Your task to perform on an android device: toggle sleep mode Image 0: 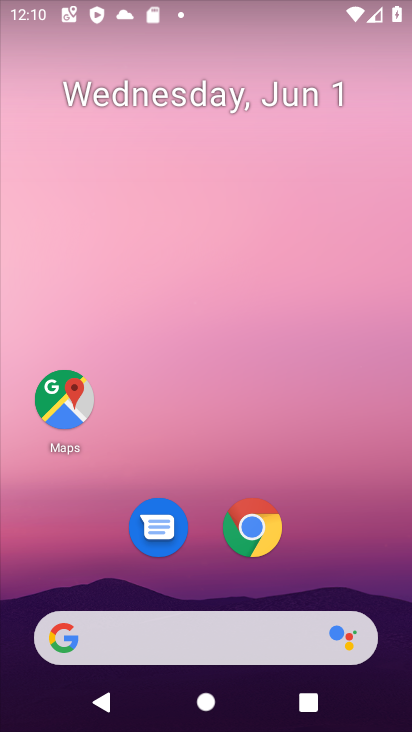
Step 0: drag from (233, 646) to (286, 19)
Your task to perform on an android device: toggle sleep mode Image 1: 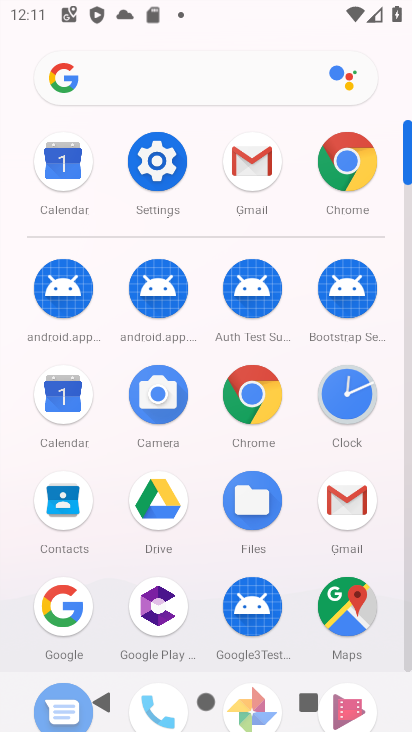
Step 1: click (256, 399)
Your task to perform on an android device: toggle sleep mode Image 2: 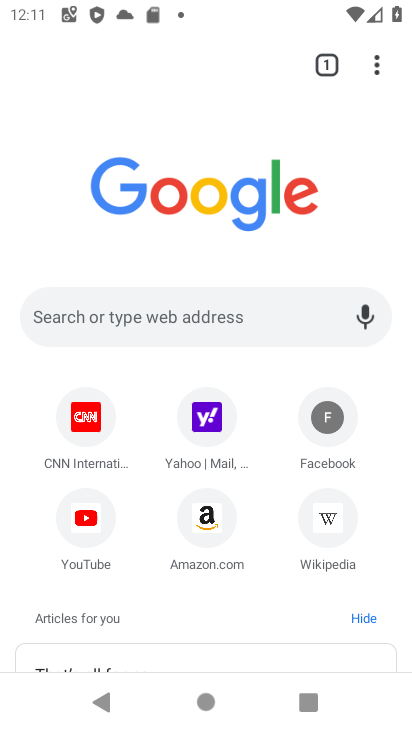
Step 2: click (374, 60)
Your task to perform on an android device: toggle sleep mode Image 3: 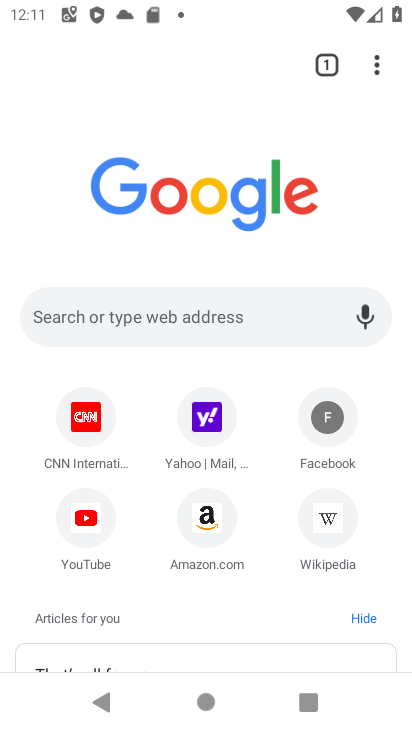
Step 3: press home button
Your task to perform on an android device: toggle sleep mode Image 4: 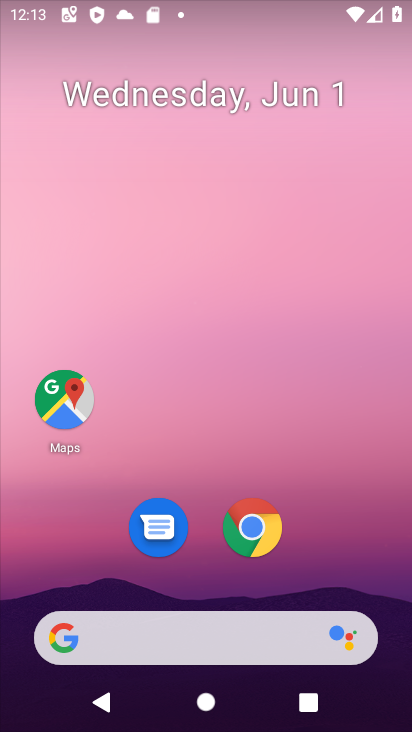
Step 4: drag from (212, 286) to (173, 41)
Your task to perform on an android device: toggle sleep mode Image 5: 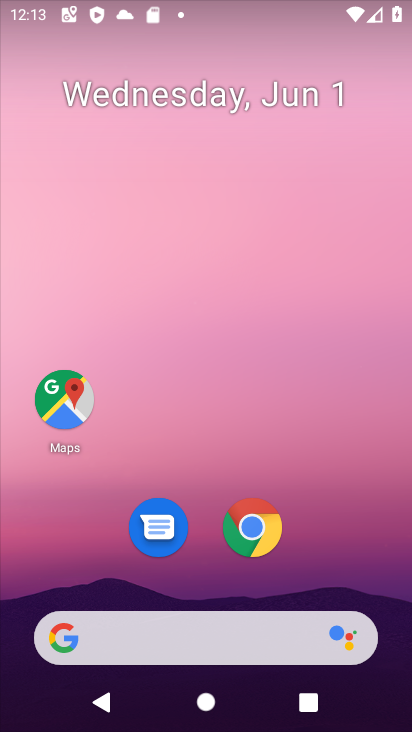
Step 5: drag from (268, 688) to (333, 15)
Your task to perform on an android device: toggle sleep mode Image 6: 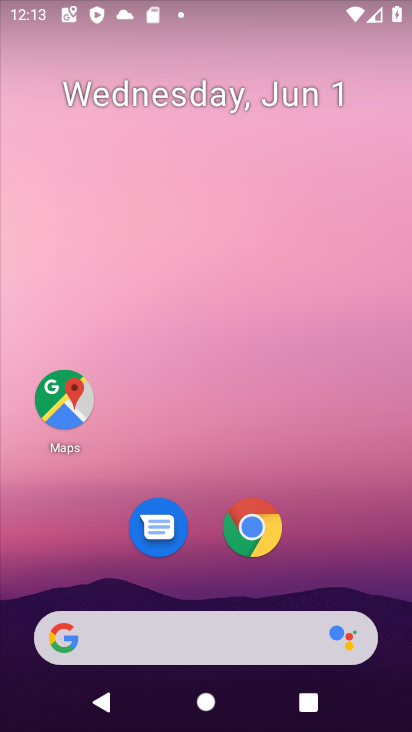
Step 6: drag from (258, 698) to (297, 2)
Your task to perform on an android device: toggle sleep mode Image 7: 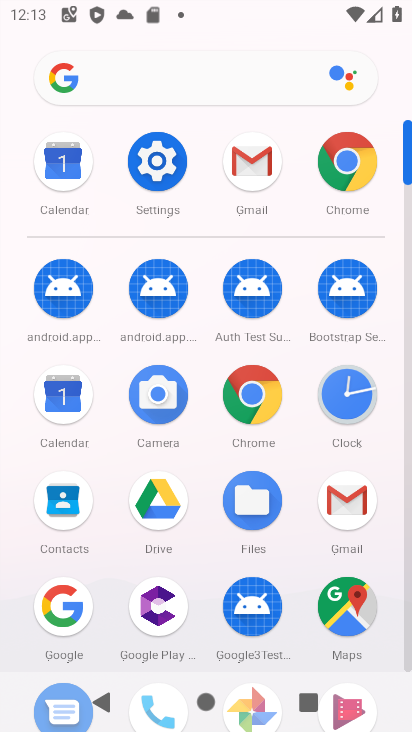
Step 7: click (158, 216)
Your task to perform on an android device: toggle sleep mode Image 8: 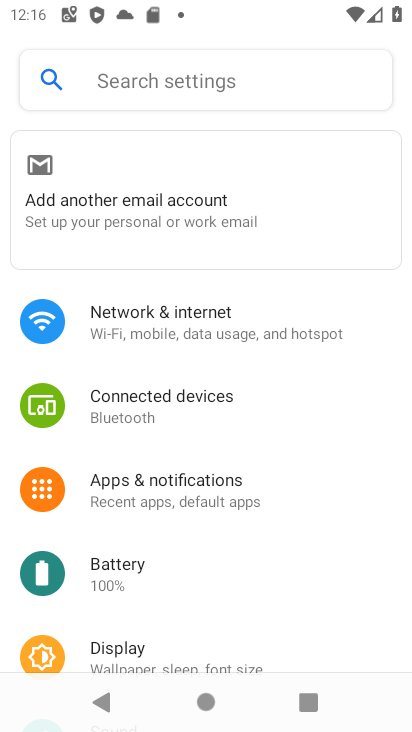
Step 8: drag from (300, 524) to (276, 100)
Your task to perform on an android device: toggle sleep mode Image 9: 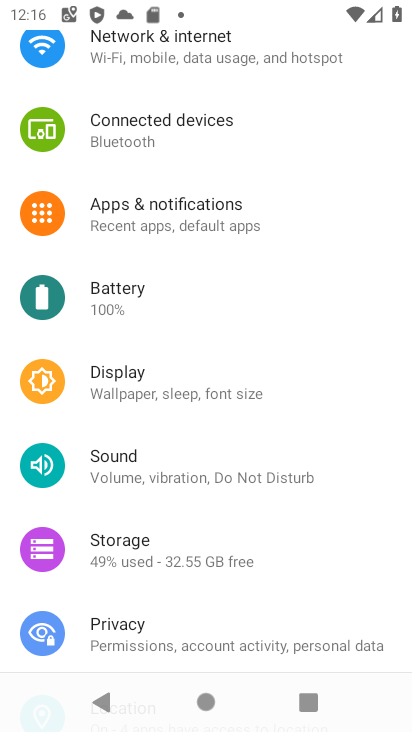
Step 9: click (232, 377)
Your task to perform on an android device: toggle sleep mode Image 10: 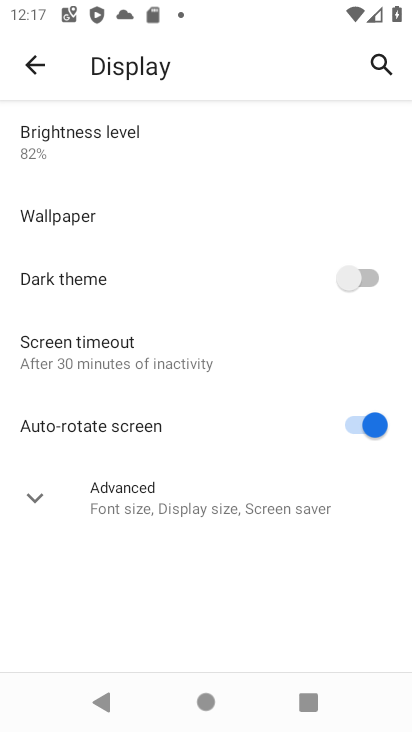
Step 10: task complete